Your task to perform on an android device: Open sound settings Image 0: 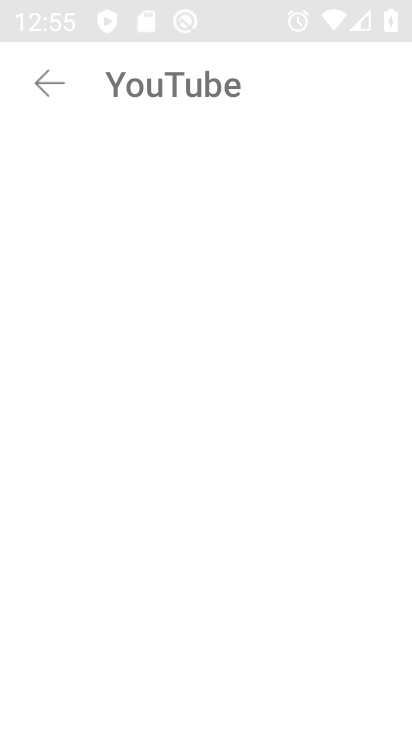
Step 0: click (353, 385)
Your task to perform on an android device: Open sound settings Image 1: 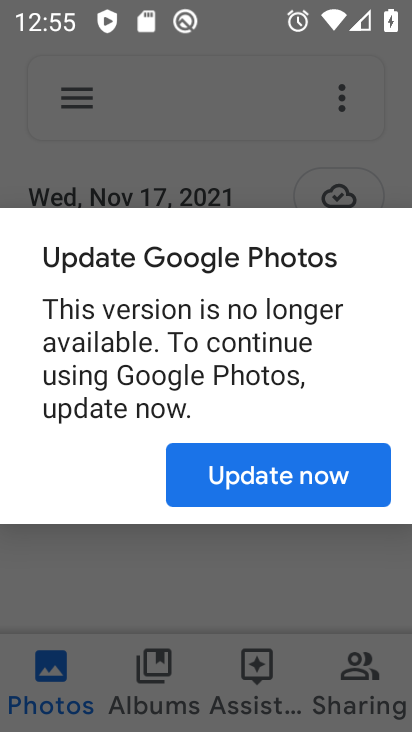
Step 1: press home button
Your task to perform on an android device: Open sound settings Image 2: 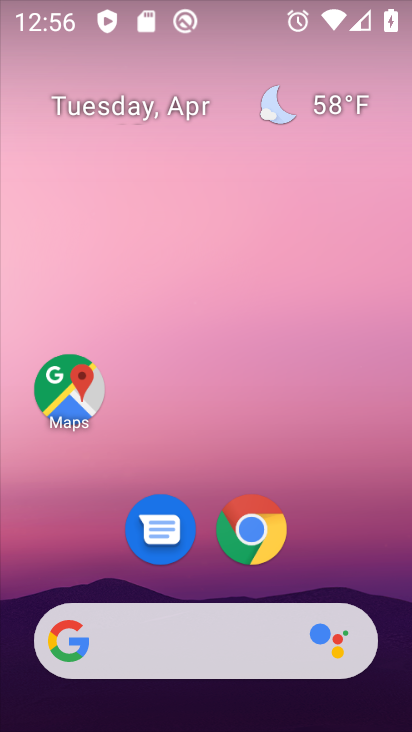
Step 2: drag from (395, 630) to (274, 138)
Your task to perform on an android device: Open sound settings Image 3: 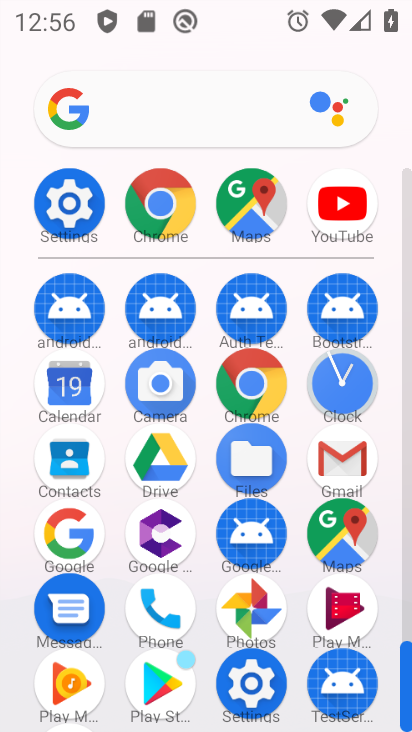
Step 3: click (77, 230)
Your task to perform on an android device: Open sound settings Image 4: 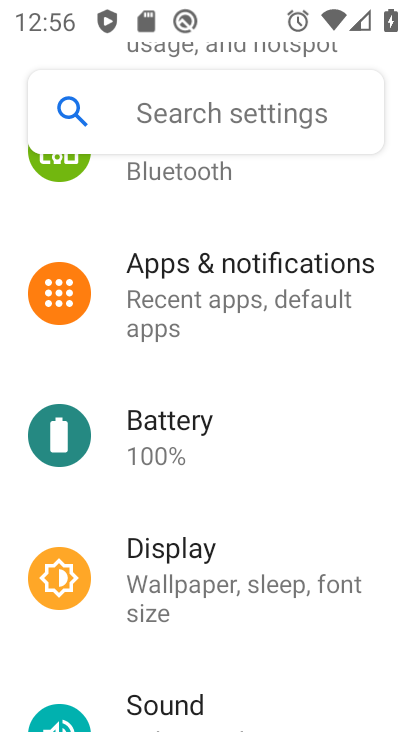
Step 4: drag from (171, 621) to (246, 207)
Your task to perform on an android device: Open sound settings Image 5: 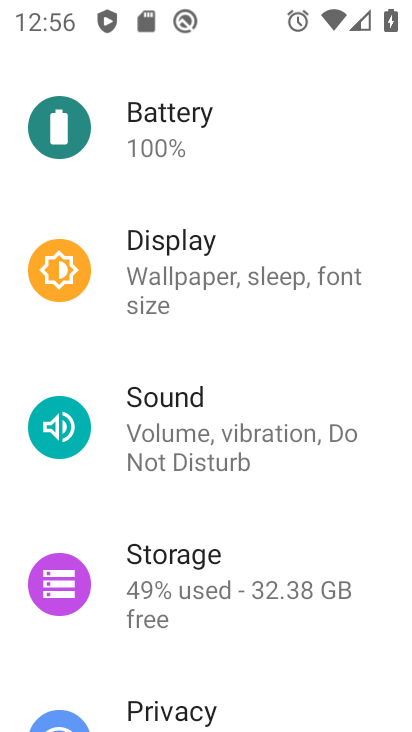
Step 5: click (165, 431)
Your task to perform on an android device: Open sound settings Image 6: 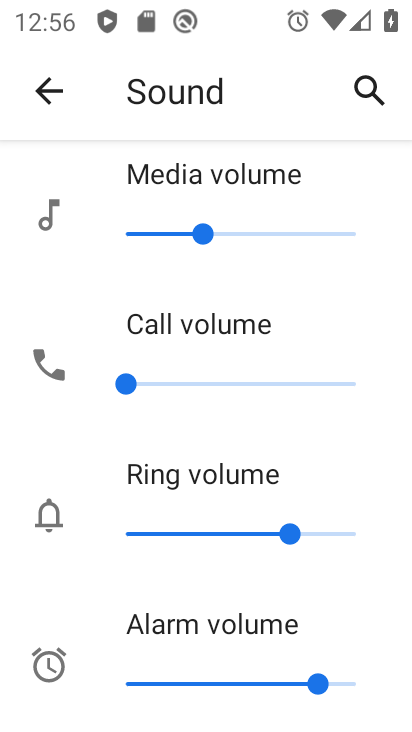
Step 6: task complete